Your task to perform on an android device: Show the shopping cart on newegg.com. Search for "sony triple a" on newegg.com, select the first entry, and add it to the cart. Image 0: 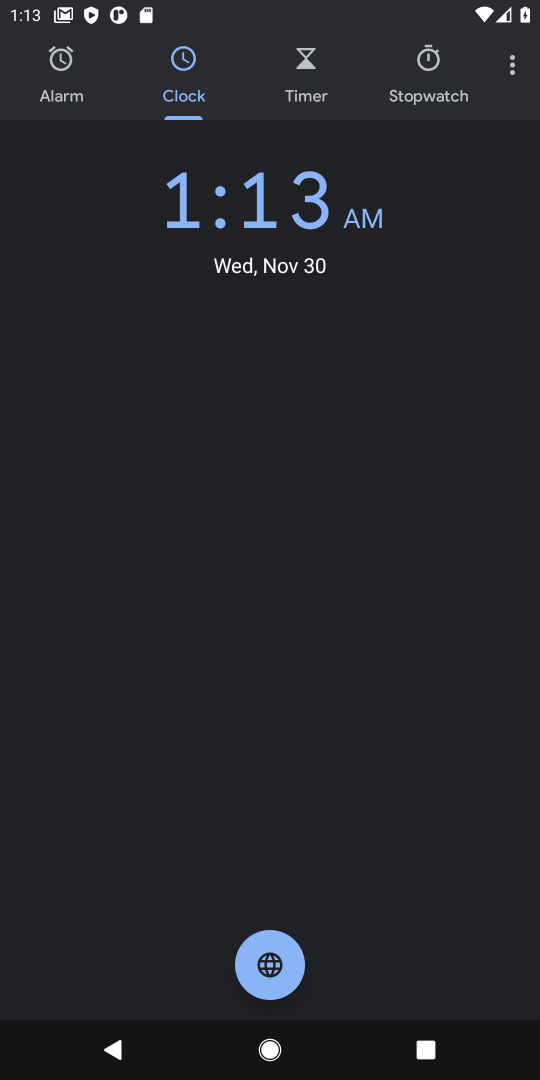
Step 0: press home button
Your task to perform on an android device: Show the shopping cart on newegg.com. Search for "sony triple a" on newegg.com, select the first entry, and add it to the cart. Image 1: 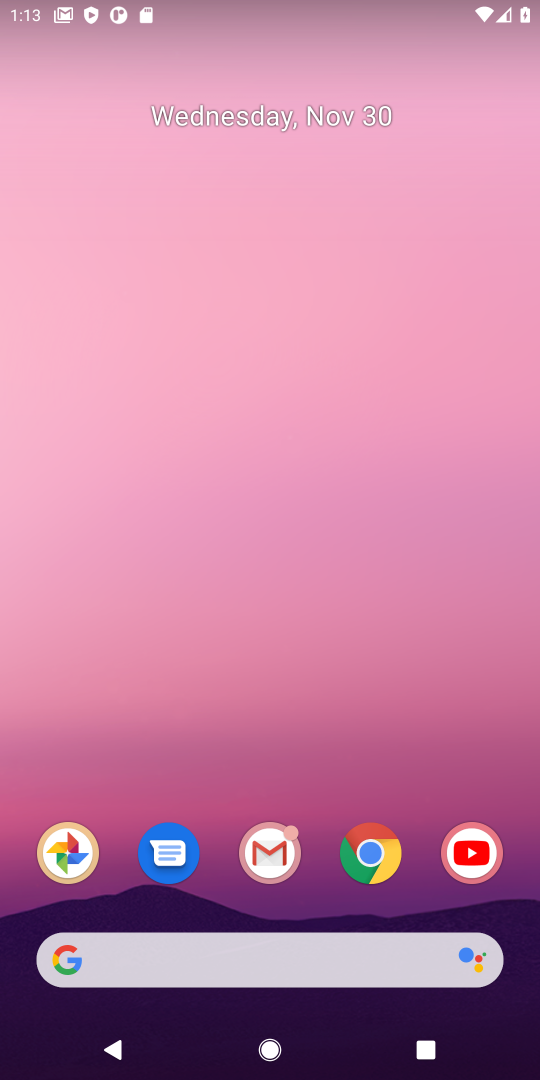
Step 1: click (375, 853)
Your task to perform on an android device: Show the shopping cart on newegg.com. Search for "sony triple a" on newegg.com, select the first entry, and add it to the cart. Image 2: 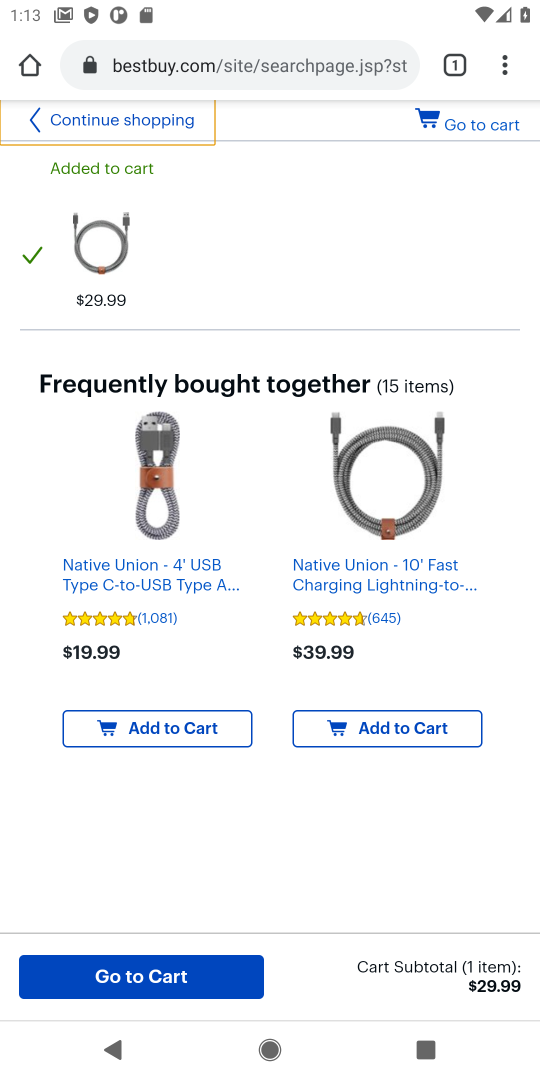
Step 2: click (209, 63)
Your task to perform on an android device: Show the shopping cart on newegg.com. Search for "sony triple a" on newegg.com, select the first entry, and add it to the cart. Image 3: 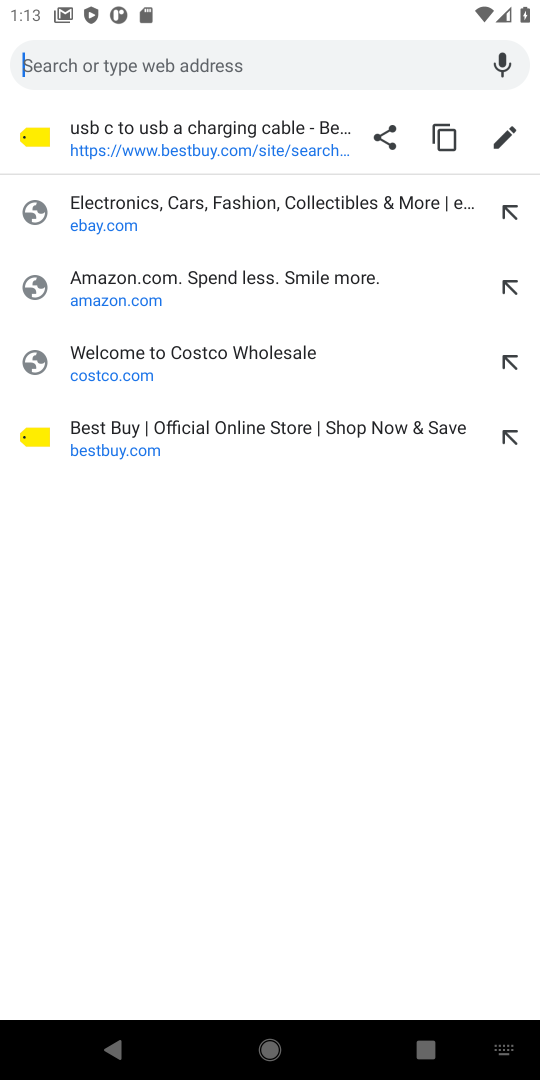
Step 3: type "newegg.com"
Your task to perform on an android device: Show the shopping cart on newegg.com. Search for "sony triple a" on newegg.com, select the first entry, and add it to the cart. Image 4: 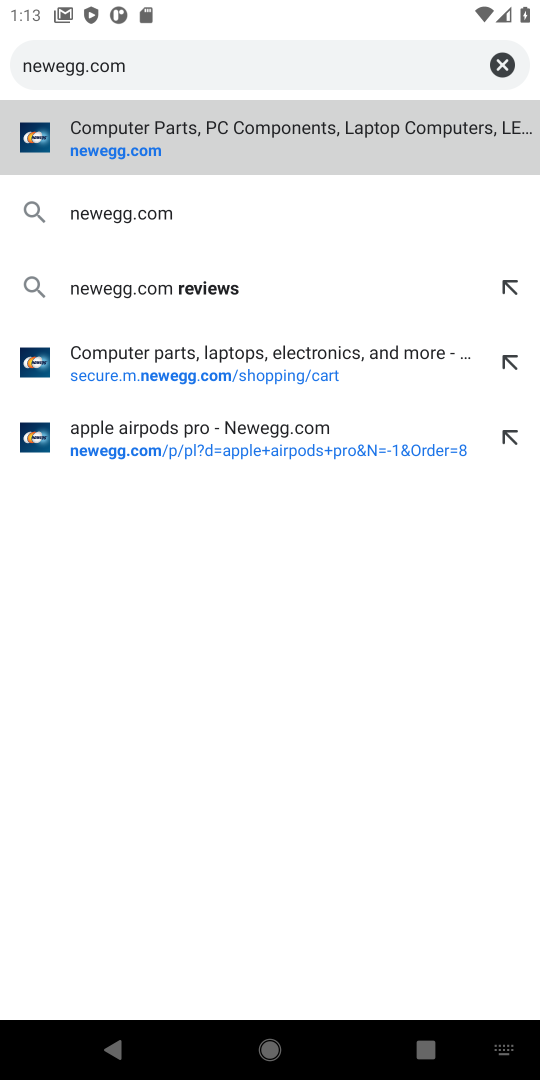
Step 4: click (96, 141)
Your task to perform on an android device: Show the shopping cart on newegg.com. Search for "sony triple a" on newegg.com, select the first entry, and add it to the cart. Image 5: 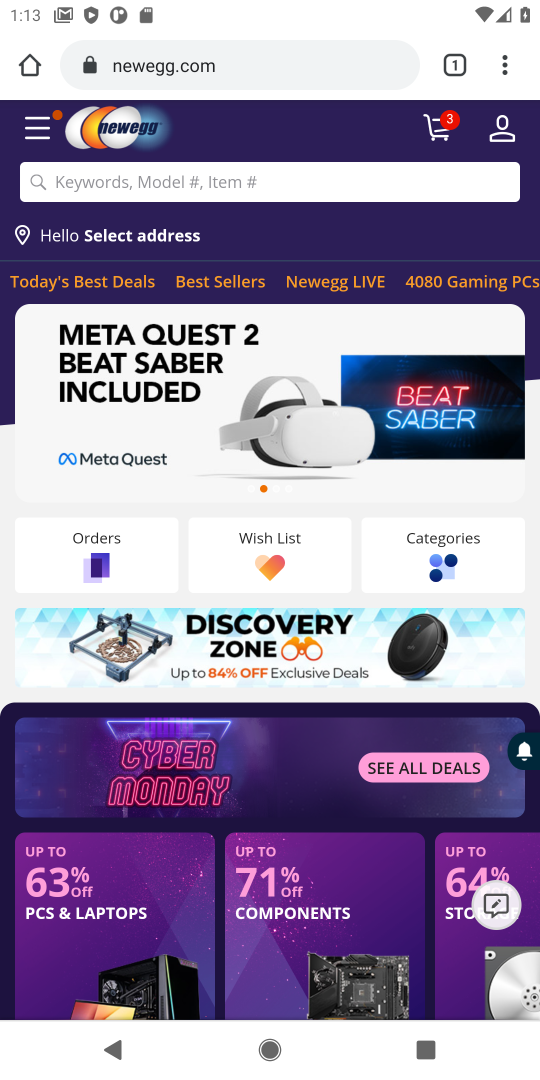
Step 5: click (437, 138)
Your task to perform on an android device: Show the shopping cart on newegg.com. Search for "sony triple a" on newegg.com, select the first entry, and add it to the cart. Image 6: 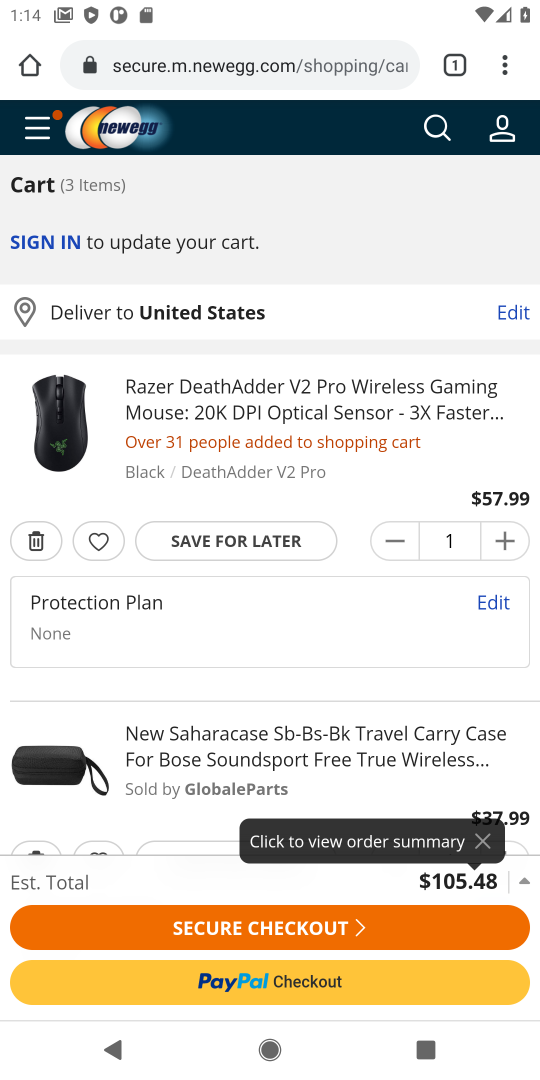
Step 6: click (434, 130)
Your task to perform on an android device: Show the shopping cart on newegg.com. Search for "sony triple a" on newegg.com, select the first entry, and add it to the cart. Image 7: 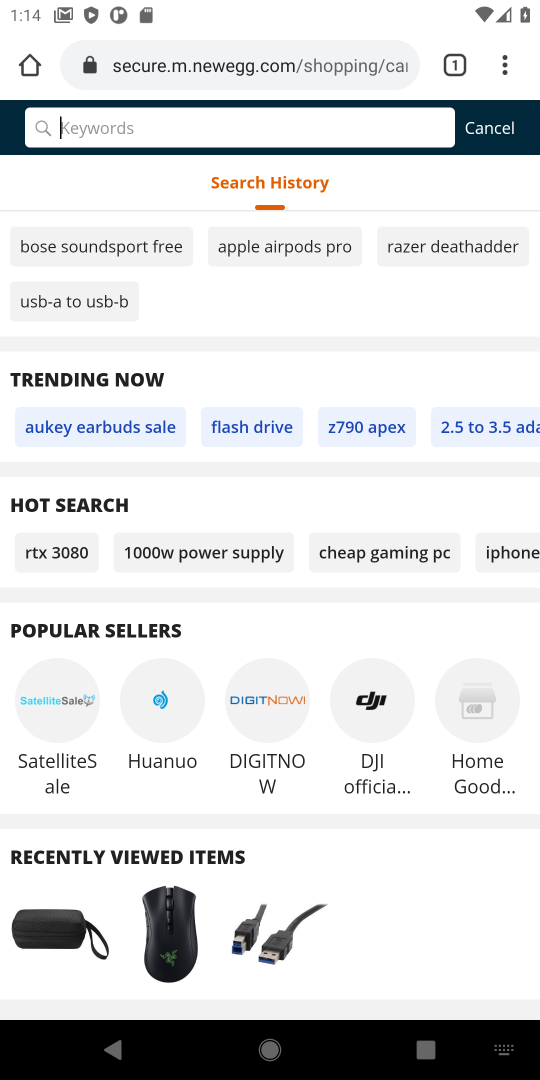
Step 7: type "sony triple a"
Your task to perform on an android device: Show the shopping cart on newegg.com. Search for "sony triple a" on newegg.com, select the first entry, and add it to the cart. Image 8: 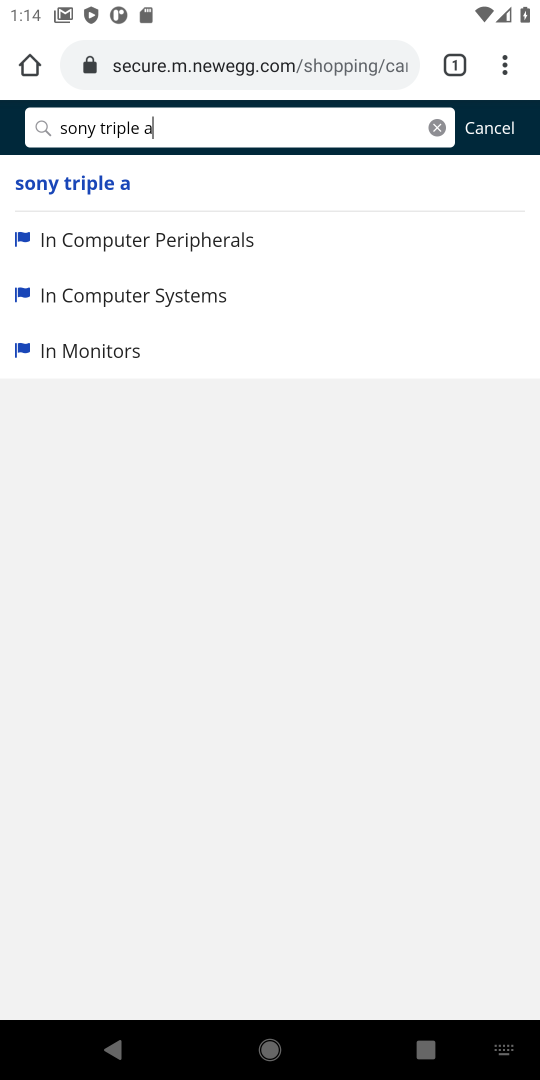
Step 8: click (74, 194)
Your task to perform on an android device: Show the shopping cart on newegg.com. Search for "sony triple a" on newegg.com, select the first entry, and add it to the cart. Image 9: 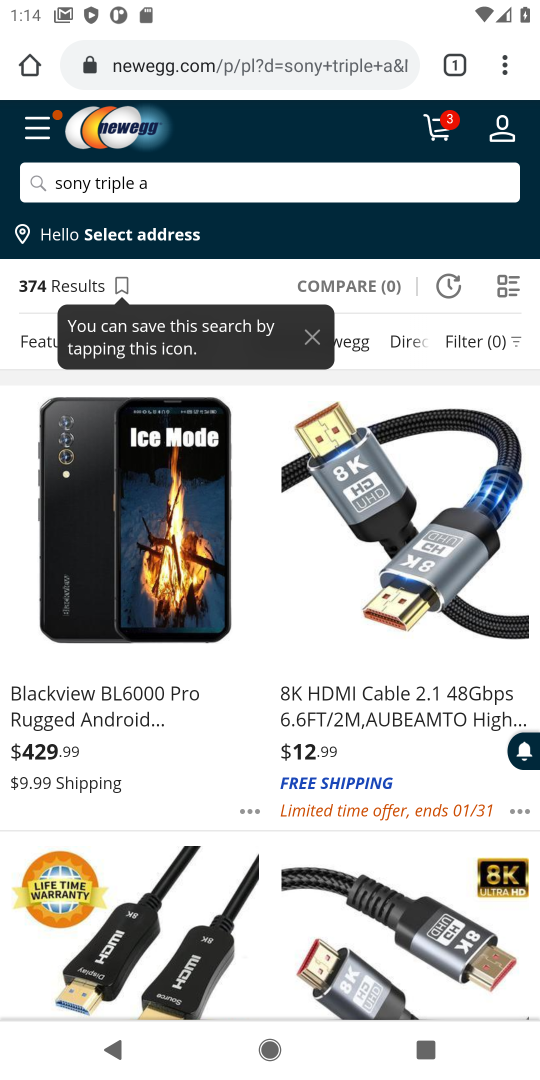
Step 9: task complete